Your task to perform on an android device: turn off notifications settings in the gmail app Image 0: 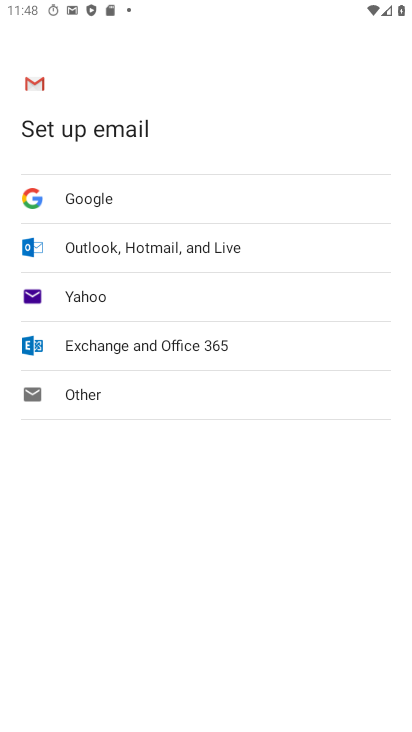
Step 0: press home button
Your task to perform on an android device: turn off notifications settings in the gmail app Image 1: 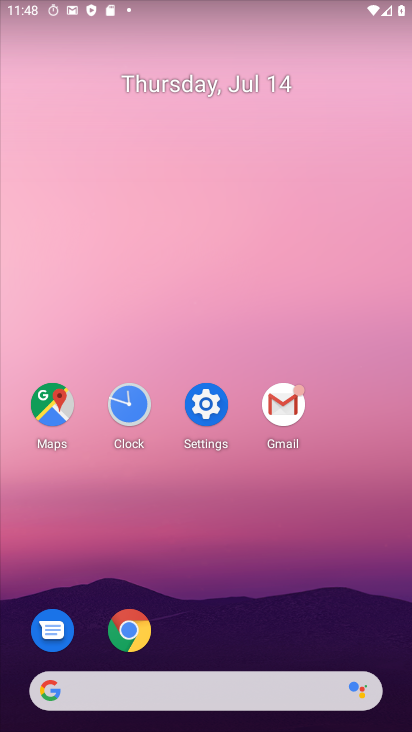
Step 1: click (285, 401)
Your task to perform on an android device: turn off notifications settings in the gmail app Image 2: 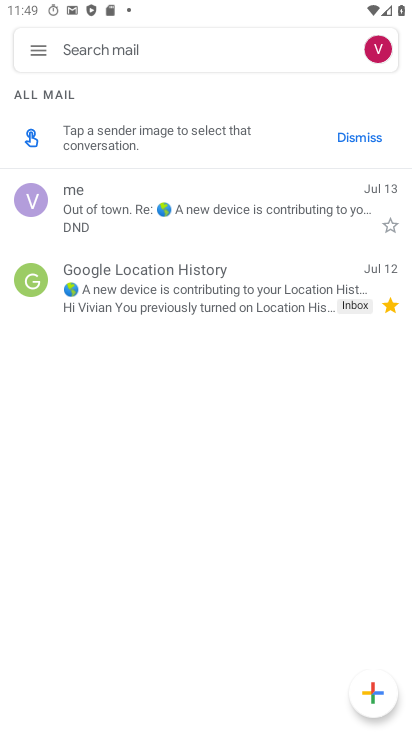
Step 2: click (41, 44)
Your task to perform on an android device: turn off notifications settings in the gmail app Image 3: 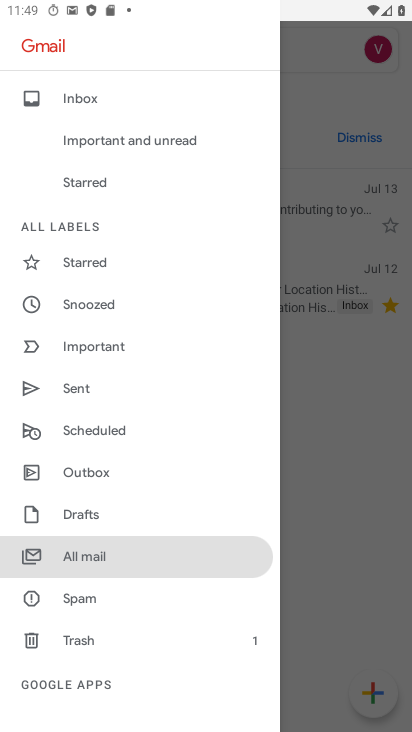
Step 3: drag from (168, 666) to (175, 300)
Your task to perform on an android device: turn off notifications settings in the gmail app Image 4: 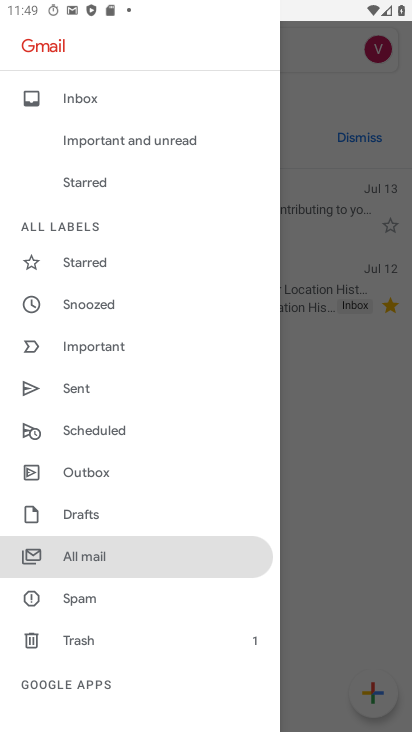
Step 4: drag from (179, 644) to (203, 236)
Your task to perform on an android device: turn off notifications settings in the gmail app Image 5: 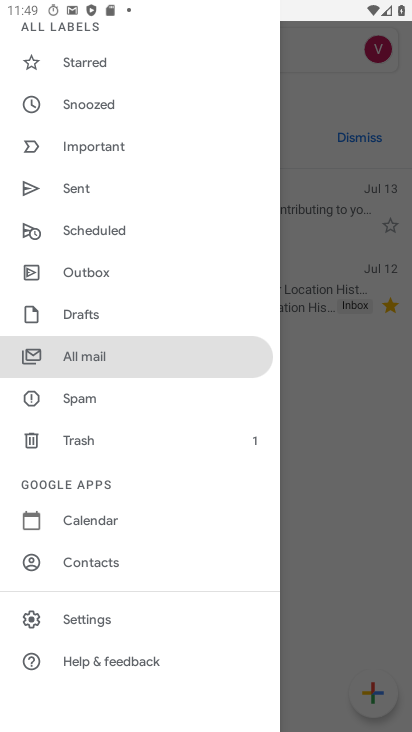
Step 5: click (73, 616)
Your task to perform on an android device: turn off notifications settings in the gmail app Image 6: 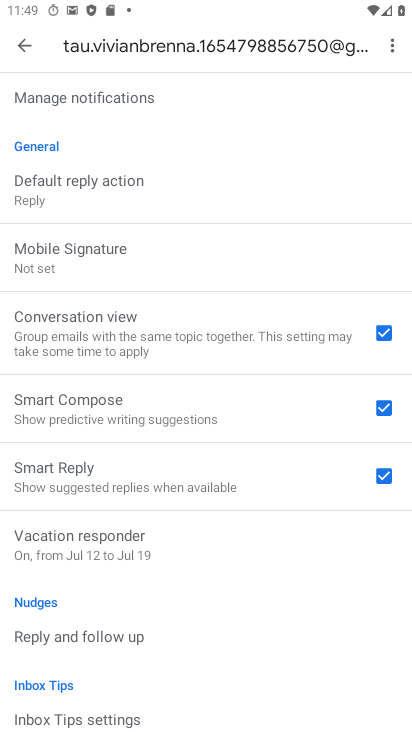
Step 6: drag from (196, 105) to (220, 516)
Your task to perform on an android device: turn off notifications settings in the gmail app Image 7: 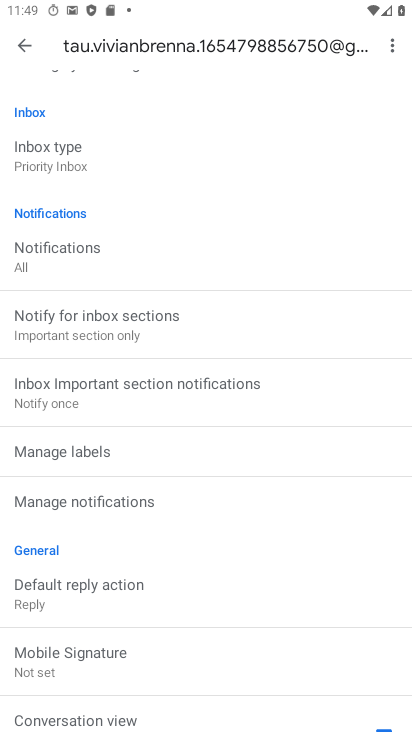
Step 7: click (105, 250)
Your task to perform on an android device: turn off notifications settings in the gmail app Image 8: 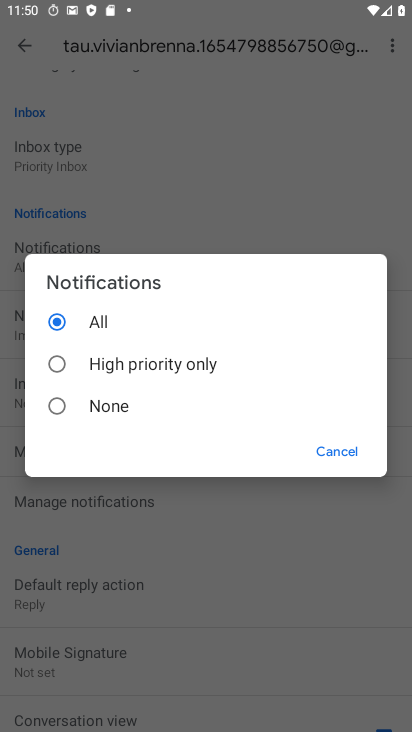
Step 8: click (55, 406)
Your task to perform on an android device: turn off notifications settings in the gmail app Image 9: 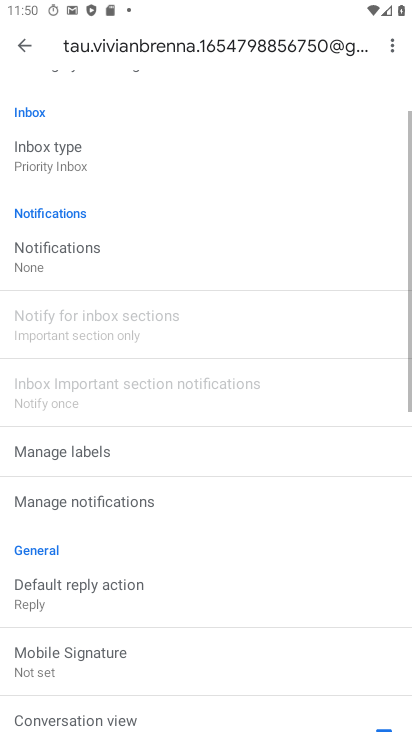
Step 9: task complete